Your task to perform on an android device: turn notification dots off Image 0: 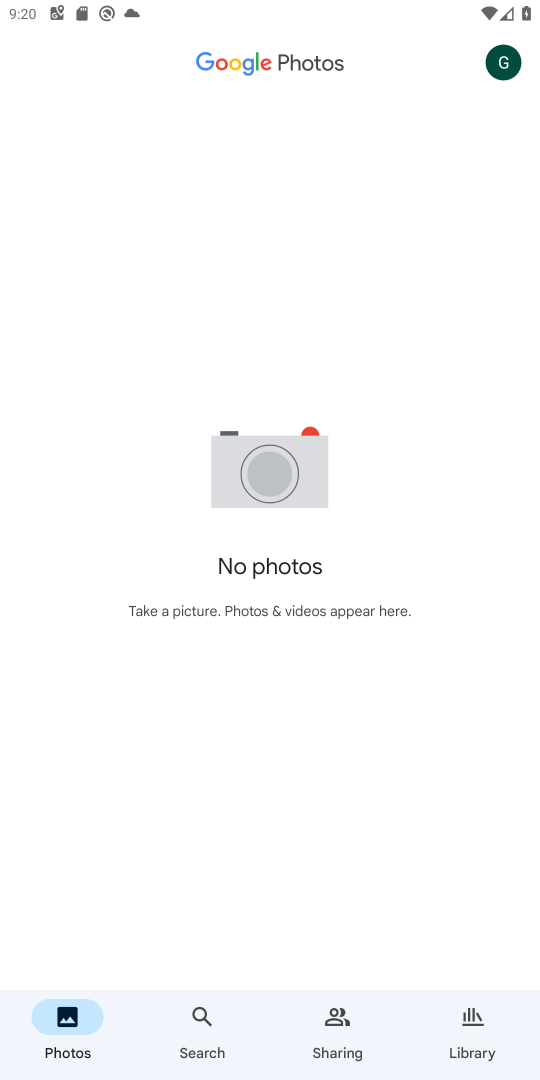
Step 0: press home button
Your task to perform on an android device: turn notification dots off Image 1: 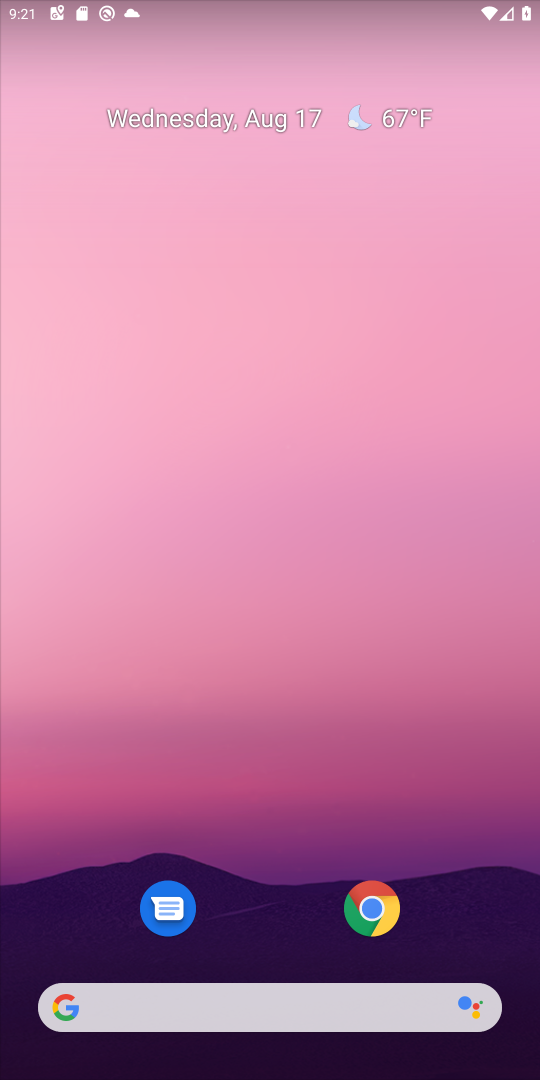
Step 1: drag from (287, 873) to (353, 28)
Your task to perform on an android device: turn notification dots off Image 2: 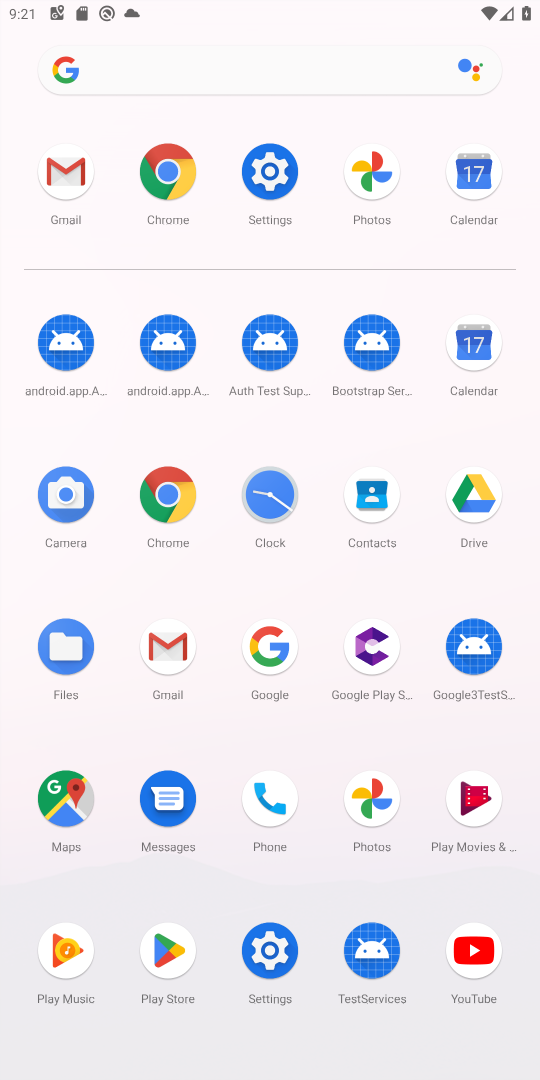
Step 2: click (261, 937)
Your task to perform on an android device: turn notification dots off Image 3: 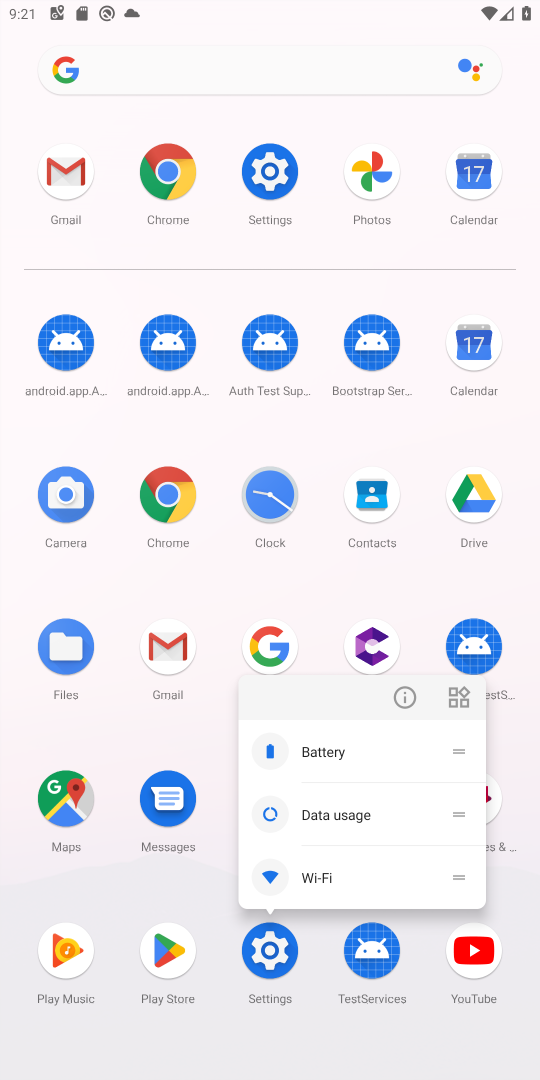
Step 3: click (280, 949)
Your task to perform on an android device: turn notification dots off Image 4: 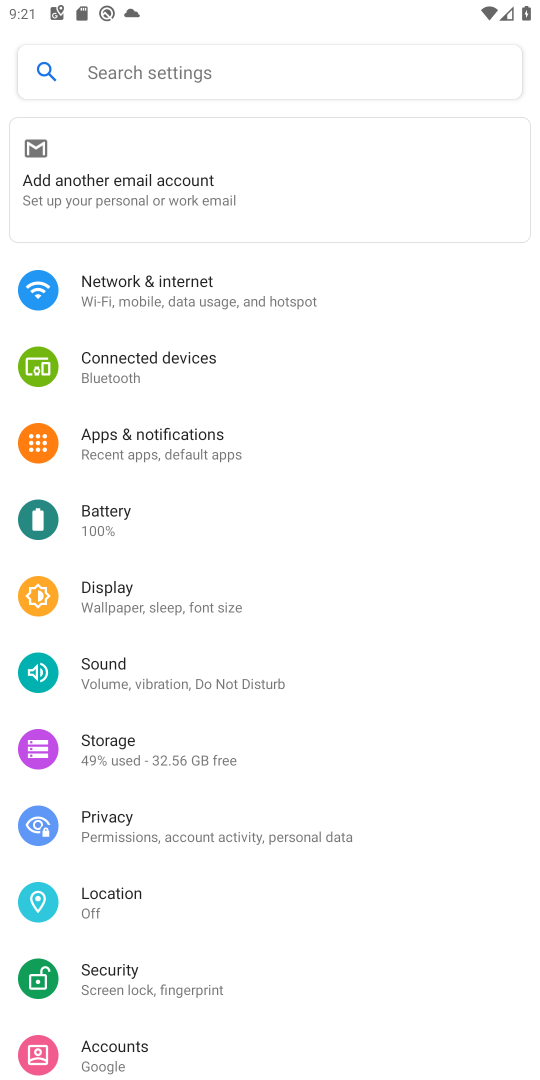
Step 4: click (167, 441)
Your task to perform on an android device: turn notification dots off Image 5: 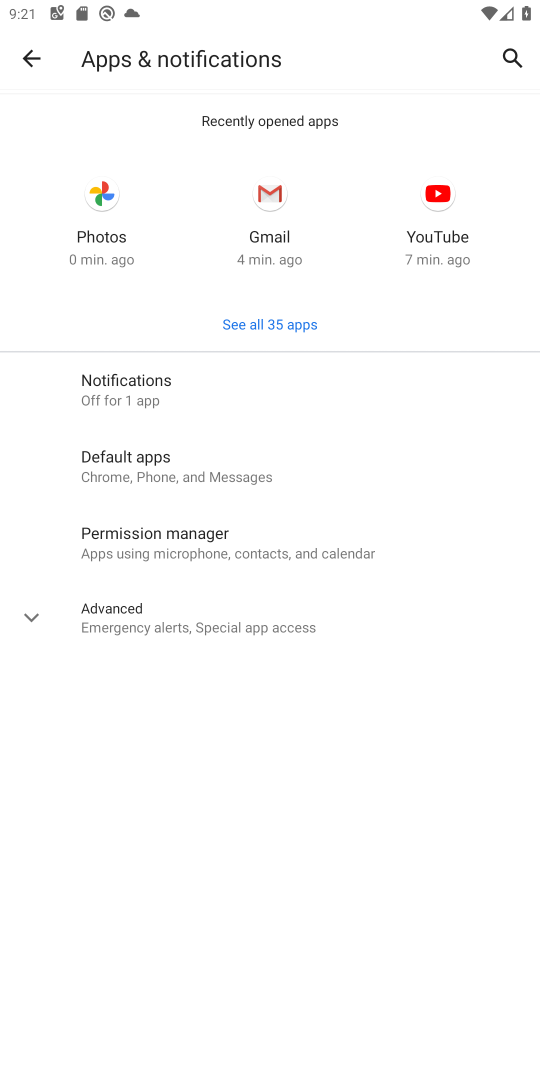
Step 5: click (110, 390)
Your task to perform on an android device: turn notification dots off Image 6: 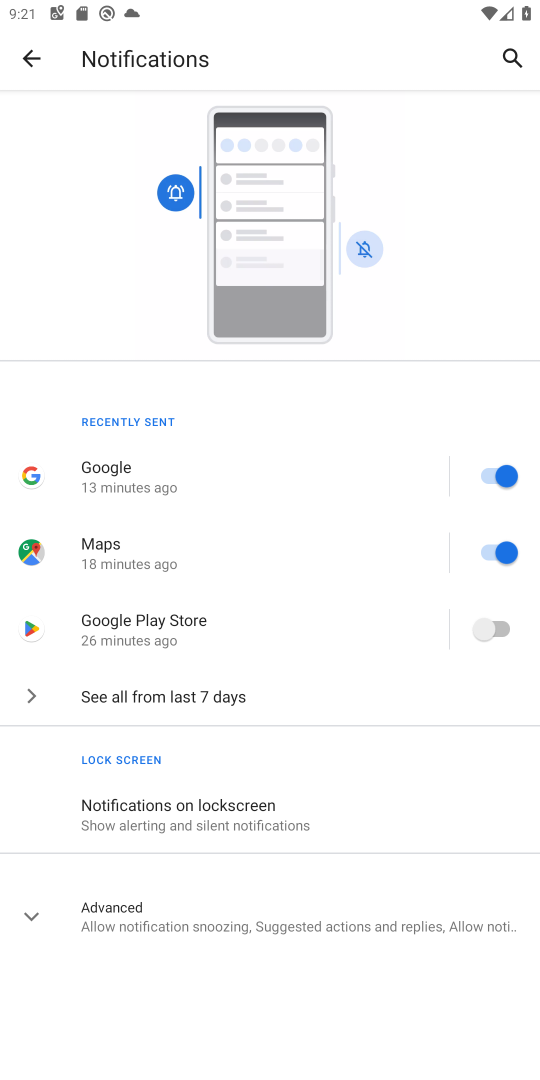
Step 6: click (117, 920)
Your task to perform on an android device: turn notification dots off Image 7: 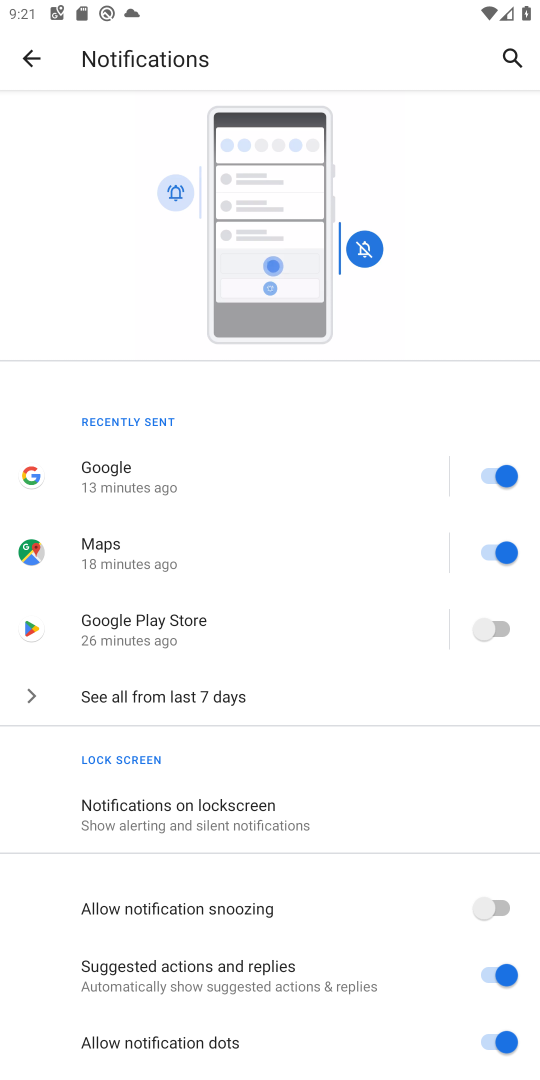
Step 7: drag from (240, 970) to (295, 481)
Your task to perform on an android device: turn notification dots off Image 8: 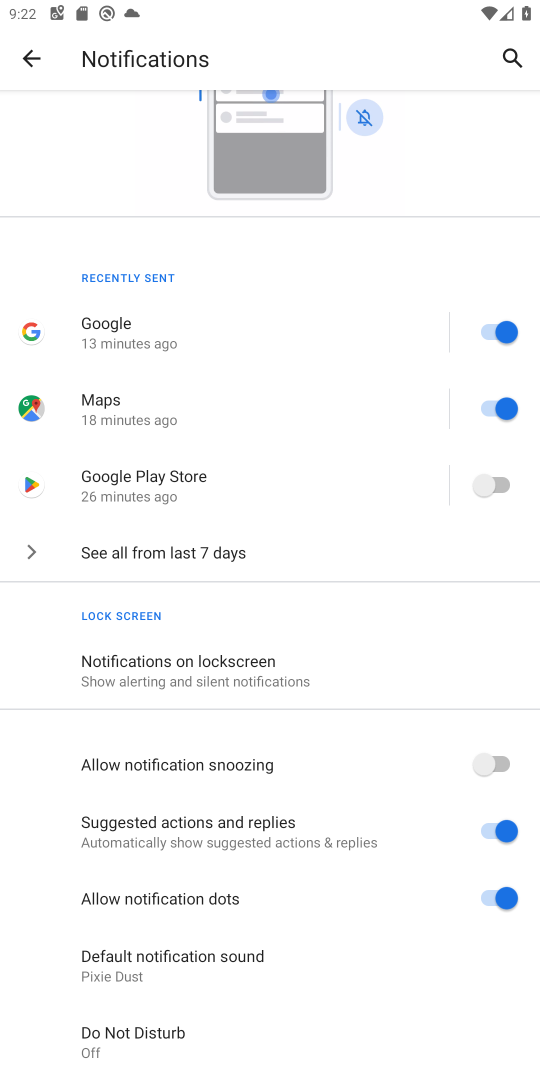
Step 8: click (492, 898)
Your task to perform on an android device: turn notification dots off Image 9: 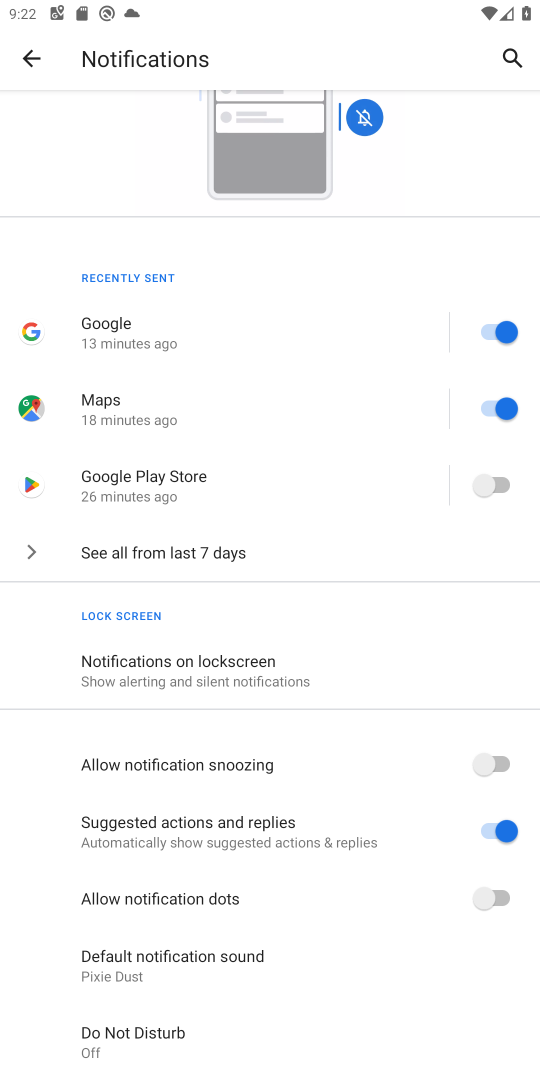
Step 9: task complete